Your task to perform on an android device: turn off translation in the chrome app Image 0: 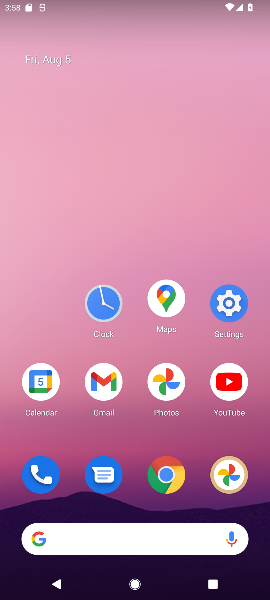
Step 0: click (160, 469)
Your task to perform on an android device: turn off translation in the chrome app Image 1: 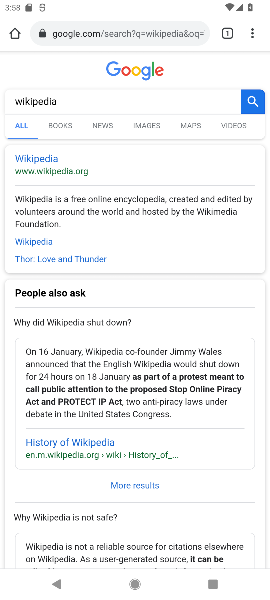
Step 1: click (253, 33)
Your task to perform on an android device: turn off translation in the chrome app Image 2: 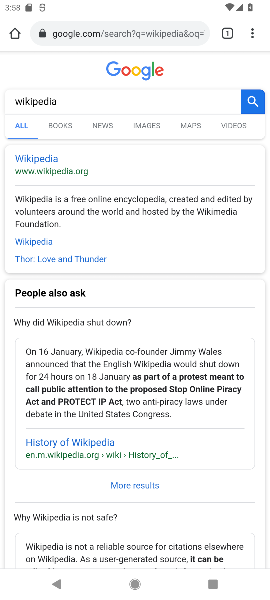
Step 2: click (254, 36)
Your task to perform on an android device: turn off translation in the chrome app Image 3: 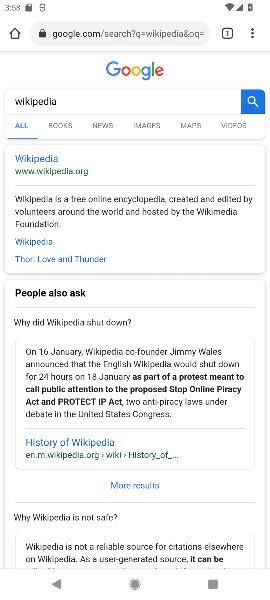
Step 3: click (247, 27)
Your task to perform on an android device: turn off translation in the chrome app Image 4: 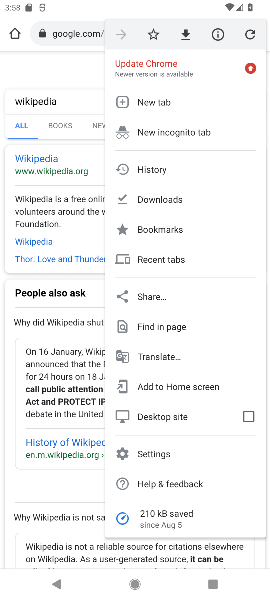
Step 4: click (138, 453)
Your task to perform on an android device: turn off translation in the chrome app Image 5: 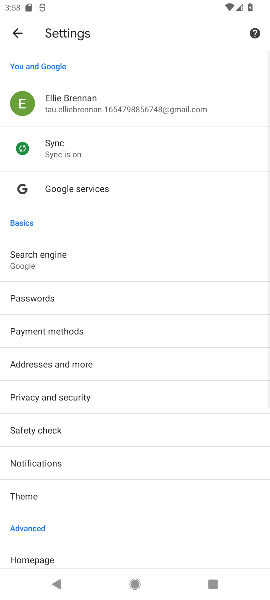
Step 5: drag from (95, 535) to (73, 207)
Your task to perform on an android device: turn off translation in the chrome app Image 6: 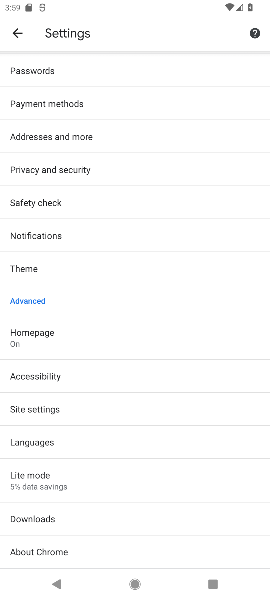
Step 6: click (20, 441)
Your task to perform on an android device: turn off translation in the chrome app Image 7: 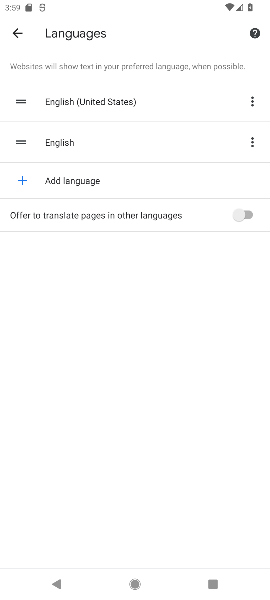
Step 7: task complete